Your task to perform on an android device: see sites visited before in the chrome app Image 0: 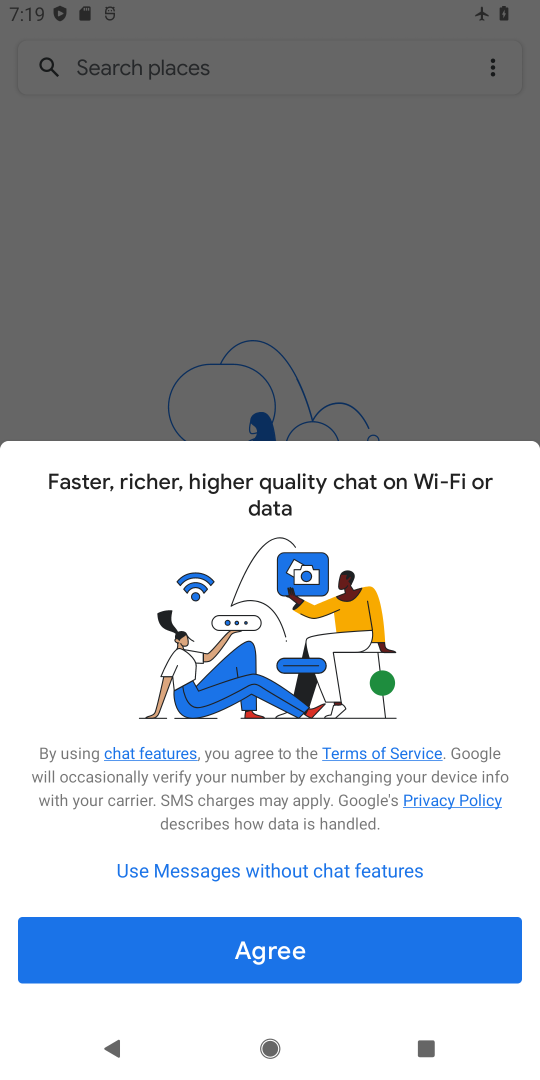
Step 0: press home button
Your task to perform on an android device: see sites visited before in the chrome app Image 1: 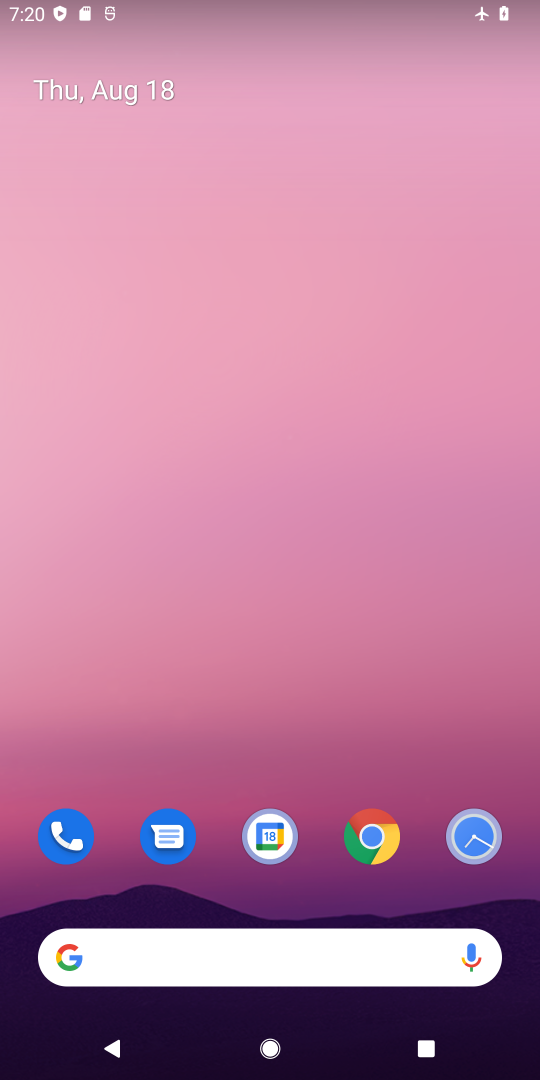
Step 1: drag from (247, 792) to (520, 430)
Your task to perform on an android device: see sites visited before in the chrome app Image 2: 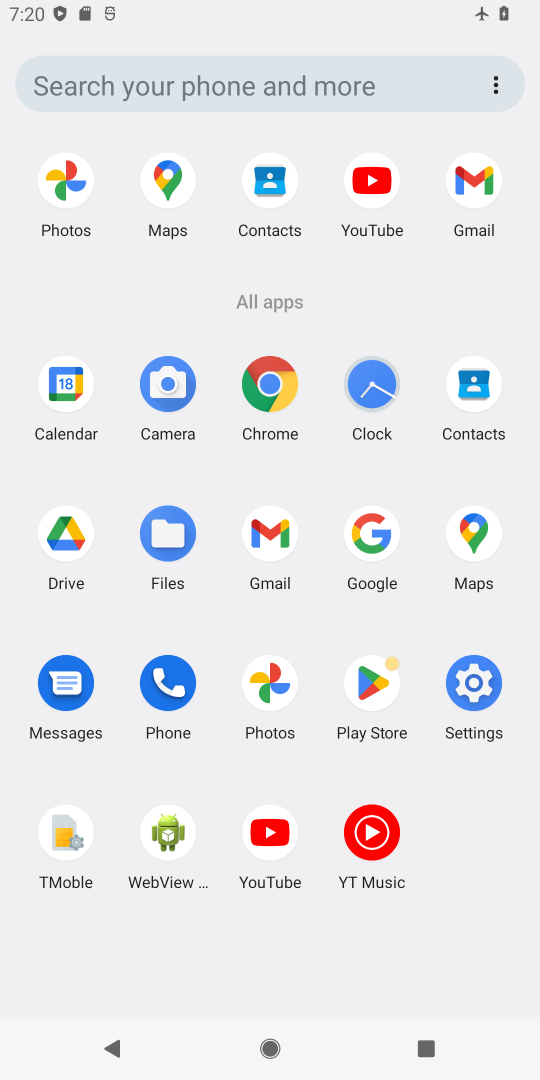
Step 2: click (281, 375)
Your task to perform on an android device: see sites visited before in the chrome app Image 3: 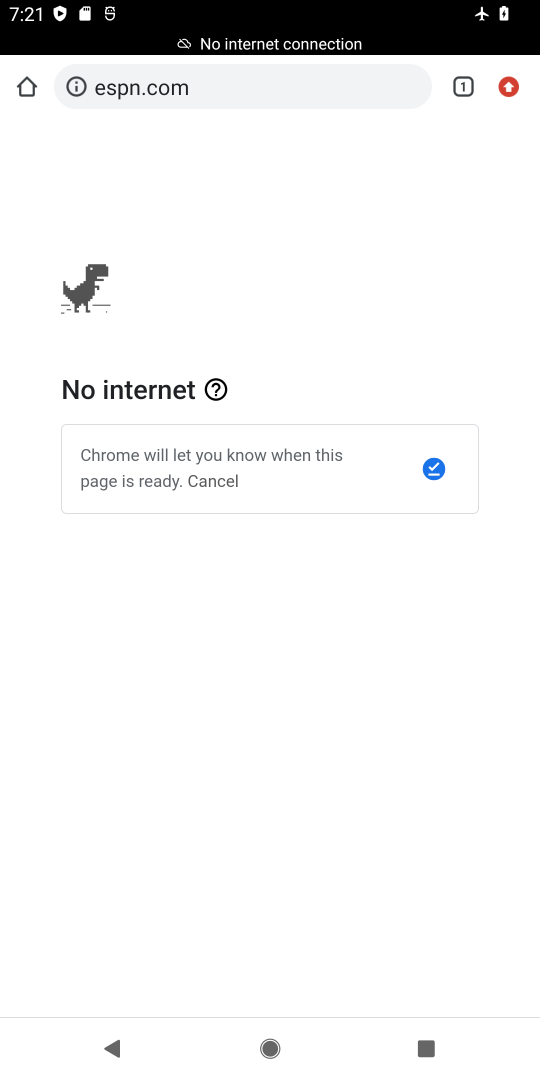
Step 3: task complete